Your task to perform on an android device: change text size in settings app Image 0: 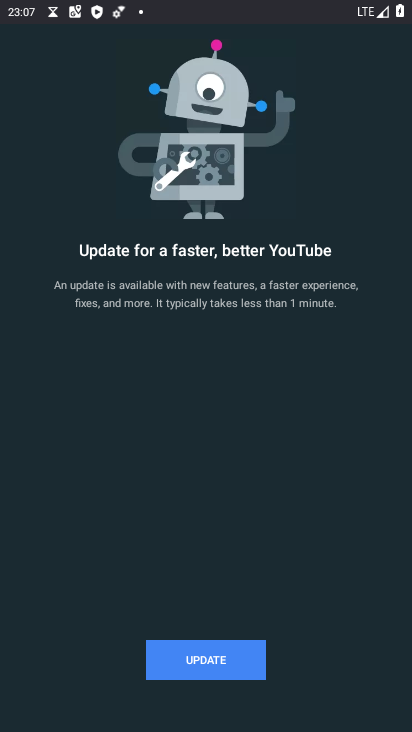
Step 0: press back button
Your task to perform on an android device: change text size in settings app Image 1: 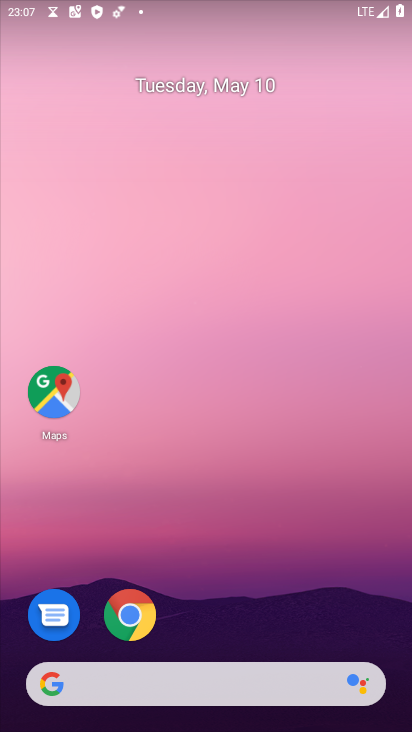
Step 1: drag from (255, 582) to (206, 173)
Your task to perform on an android device: change text size in settings app Image 2: 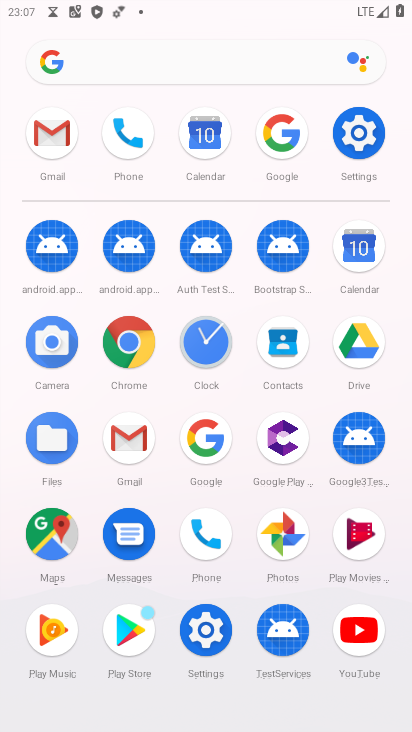
Step 2: click (357, 132)
Your task to perform on an android device: change text size in settings app Image 3: 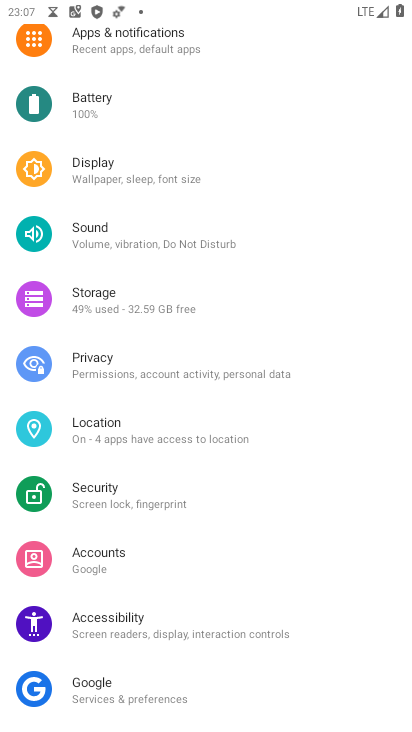
Step 3: drag from (212, 571) to (250, 482)
Your task to perform on an android device: change text size in settings app Image 4: 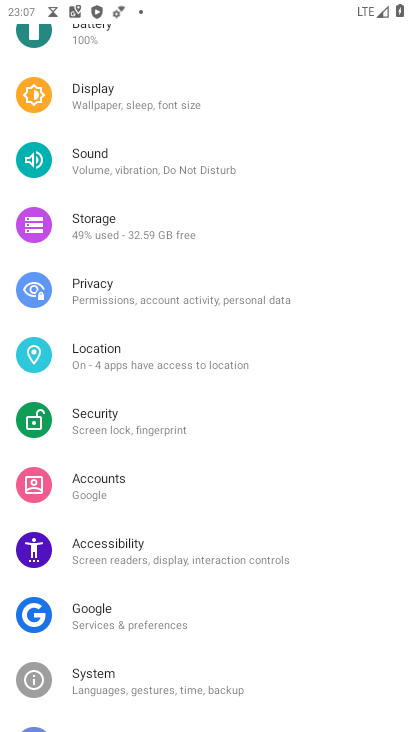
Step 4: drag from (166, 653) to (242, 528)
Your task to perform on an android device: change text size in settings app Image 5: 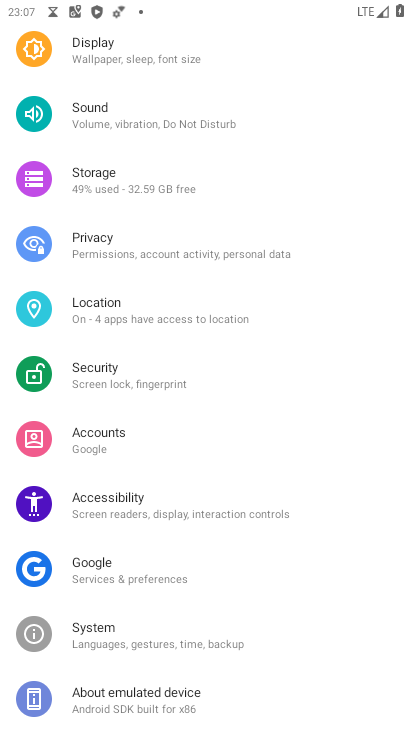
Step 5: drag from (222, 712) to (265, 607)
Your task to perform on an android device: change text size in settings app Image 6: 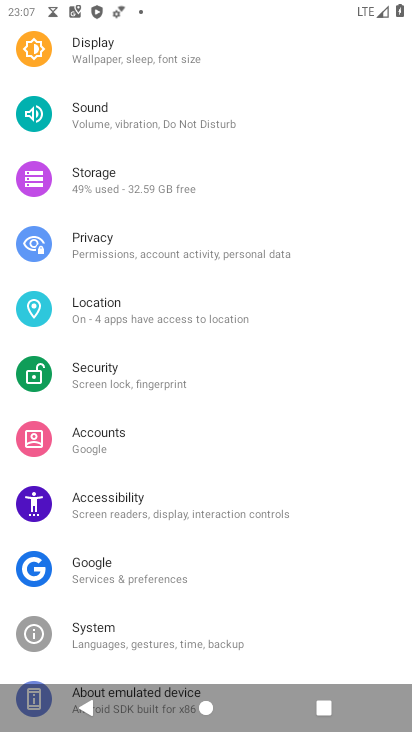
Step 6: drag from (255, 416) to (289, 500)
Your task to perform on an android device: change text size in settings app Image 7: 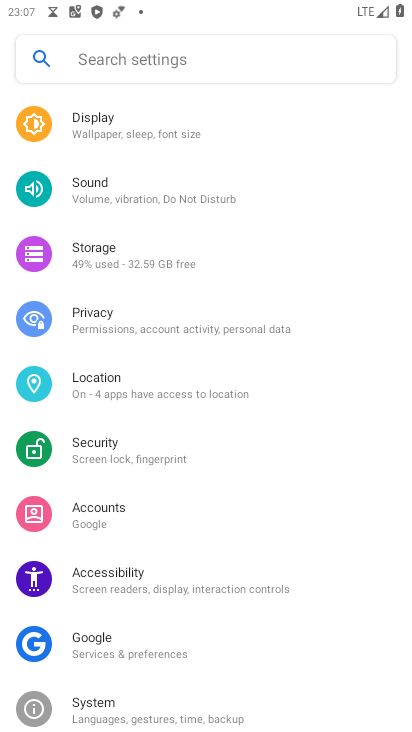
Step 7: click (167, 580)
Your task to perform on an android device: change text size in settings app Image 8: 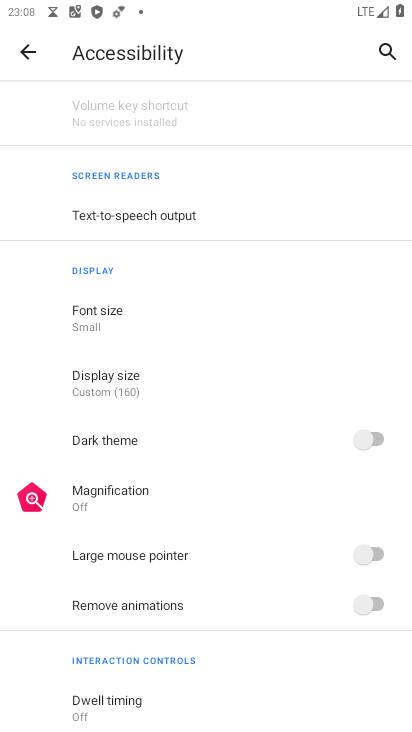
Step 8: click (103, 308)
Your task to perform on an android device: change text size in settings app Image 9: 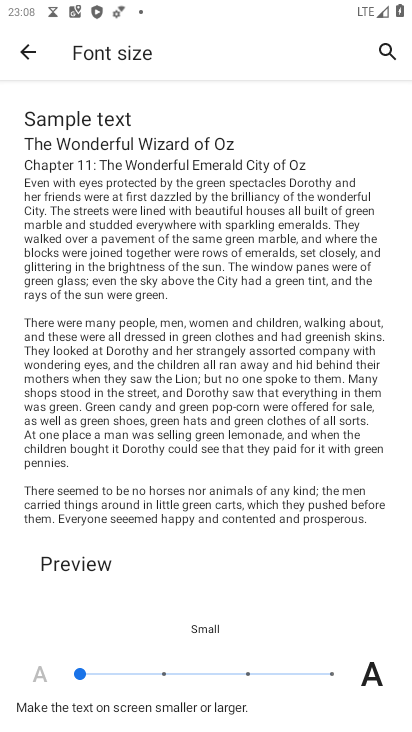
Step 9: click (164, 667)
Your task to perform on an android device: change text size in settings app Image 10: 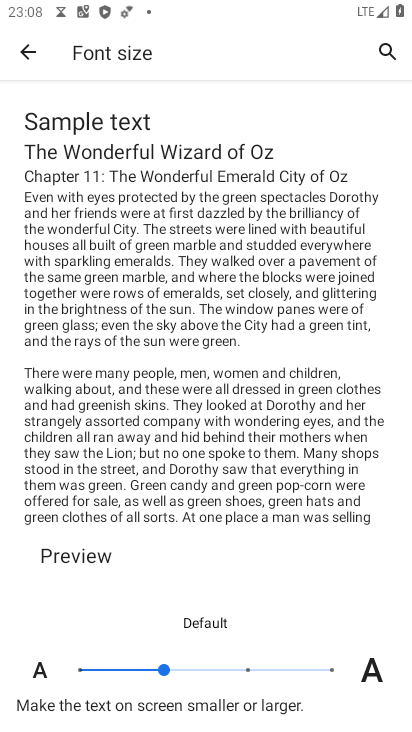
Step 10: task complete